Your task to perform on an android device: clear history in the chrome app Image 0: 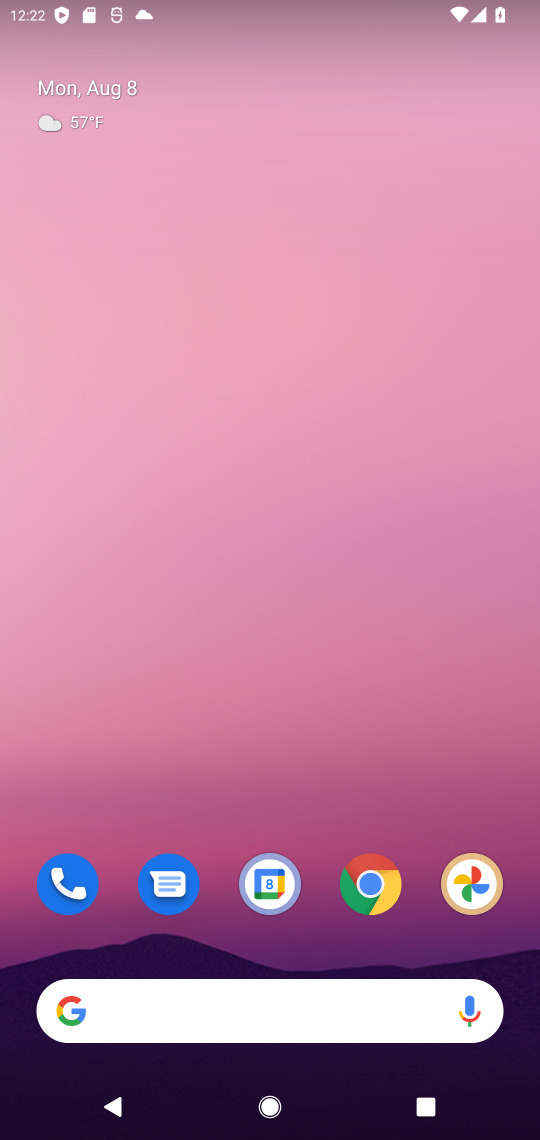
Step 0: click (361, 900)
Your task to perform on an android device: clear history in the chrome app Image 1: 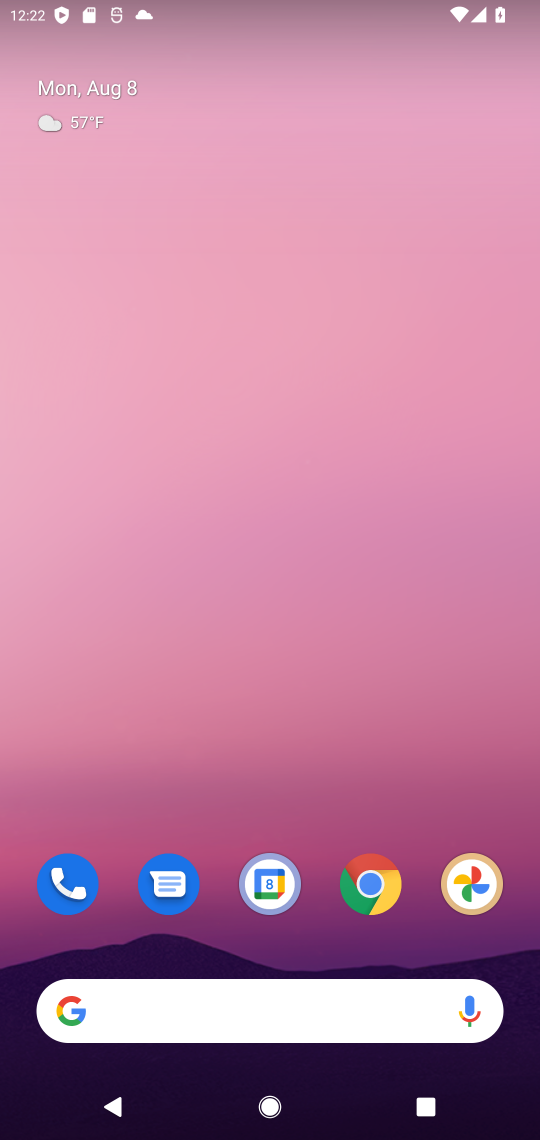
Step 1: click (361, 900)
Your task to perform on an android device: clear history in the chrome app Image 2: 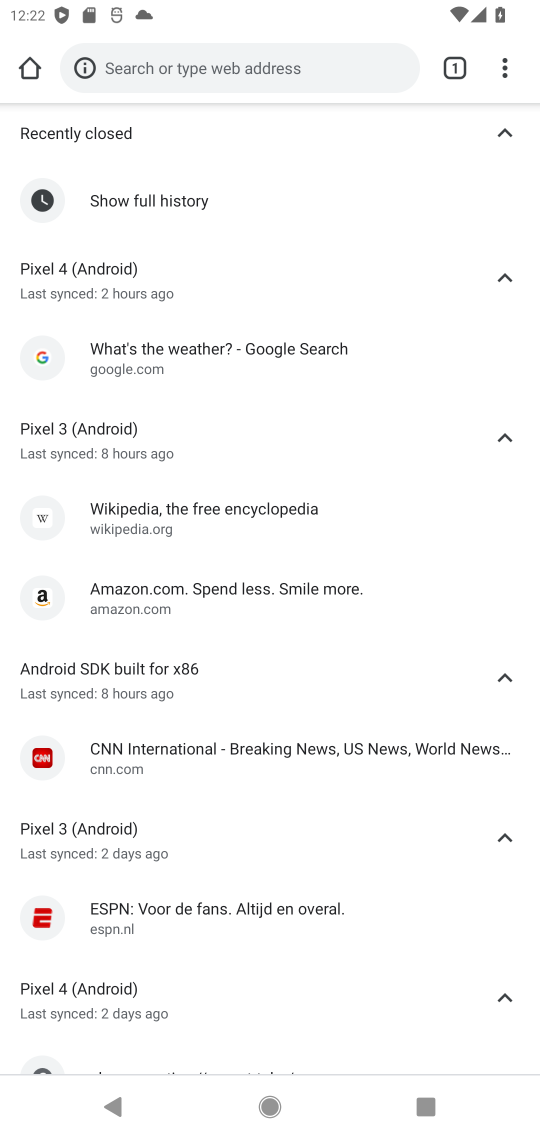
Step 2: click (497, 70)
Your task to perform on an android device: clear history in the chrome app Image 3: 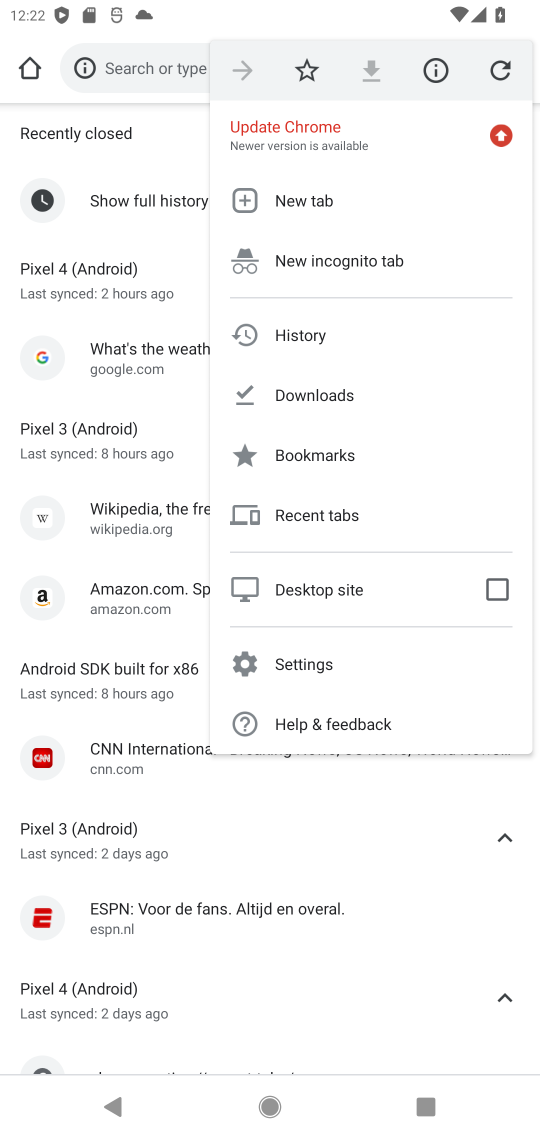
Step 3: click (367, 333)
Your task to perform on an android device: clear history in the chrome app Image 4: 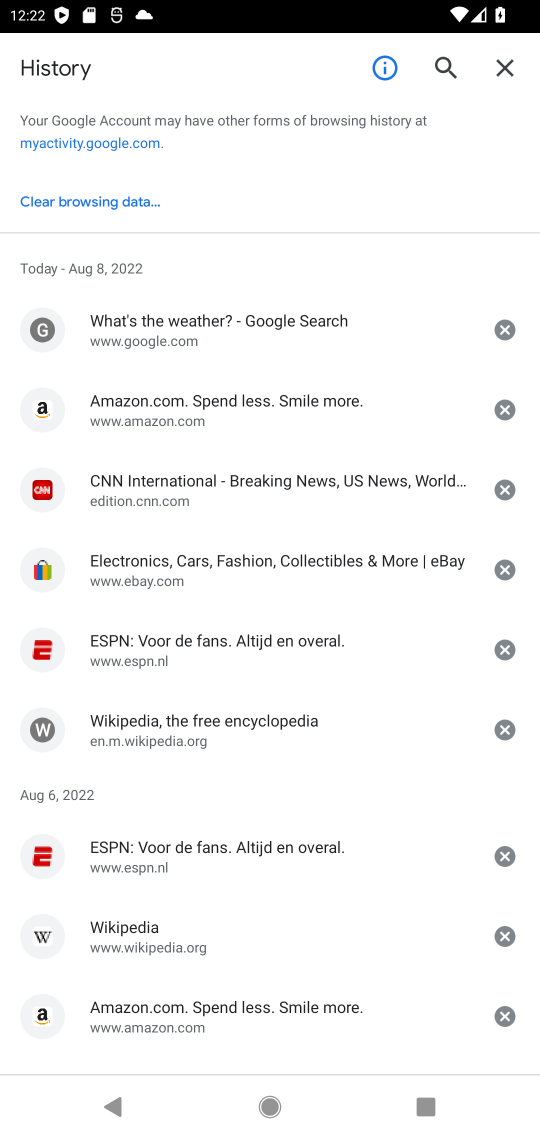
Step 4: click (49, 201)
Your task to perform on an android device: clear history in the chrome app Image 5: 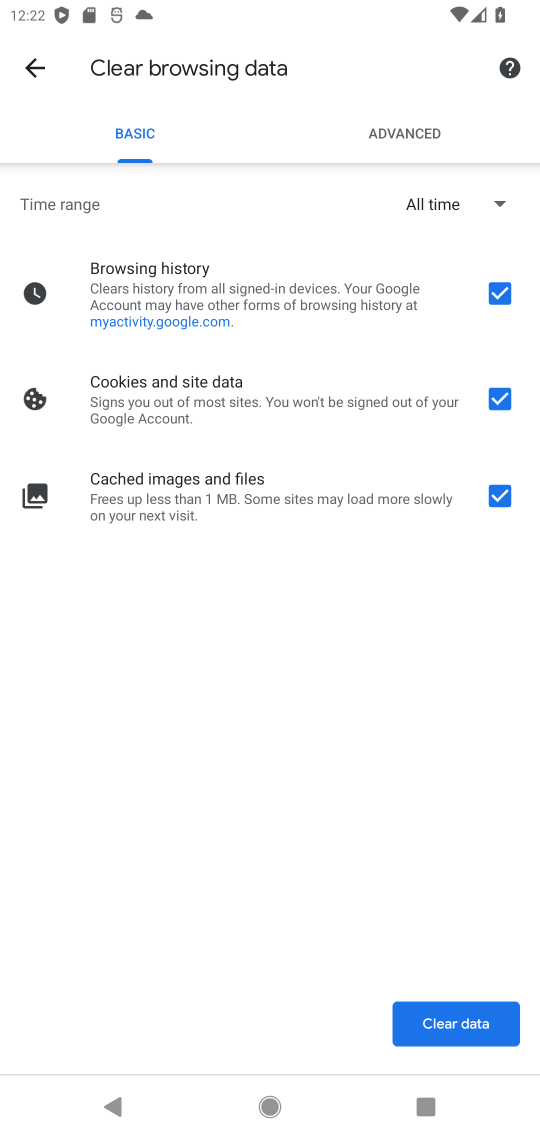
Step 5: click (474, 1028)
Your task to perform on an android device: clear history in the chrome app Image 6: 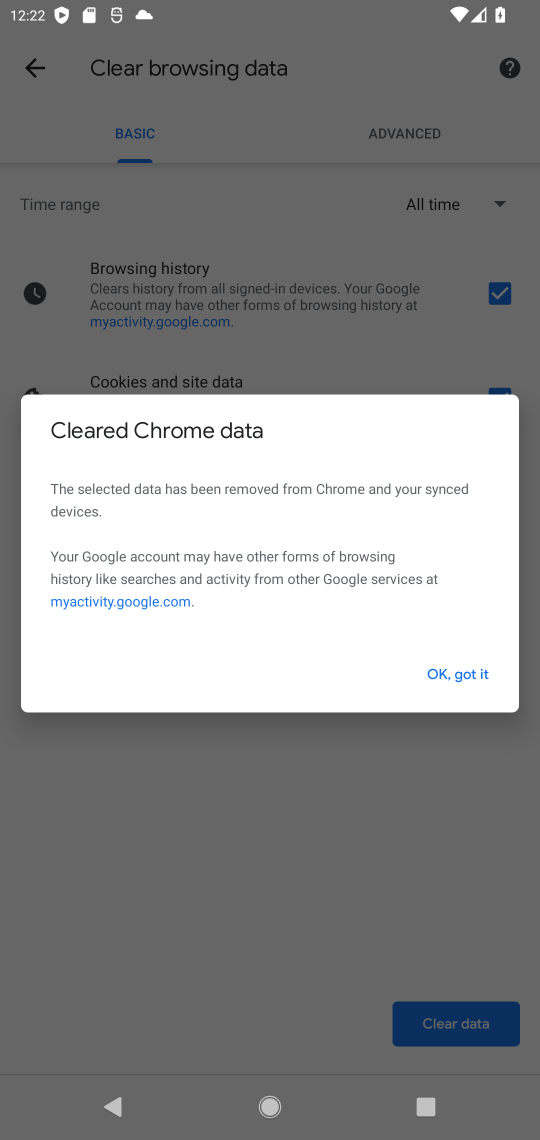
Step 6: click (449, 669)
Your task to perform on an android device: clear history in the chrome app Image 7: 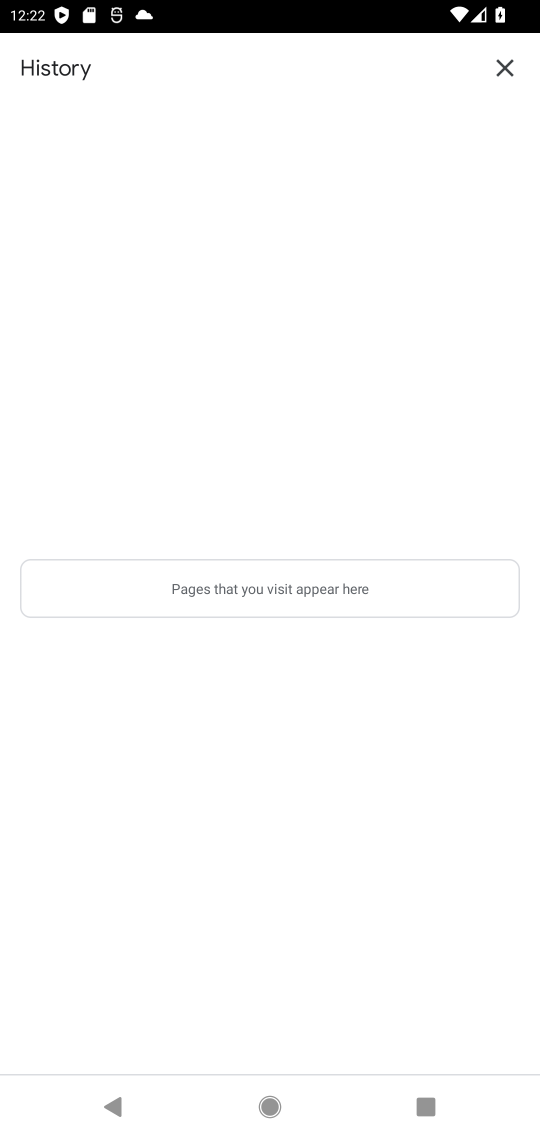
Step 7: task complete